Your task to perform on an android device: open app "ZOOM Cloud Meetings" Image 0: 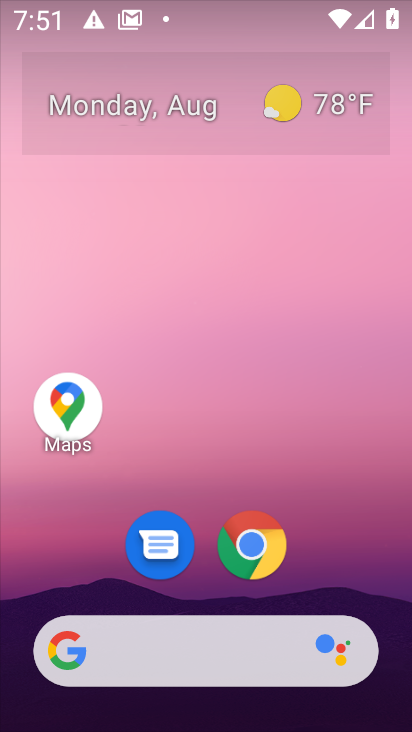
Step 0: press home button
Your task to perform on an android device: open app "ZOOM Cloud Meetings" Image 1: 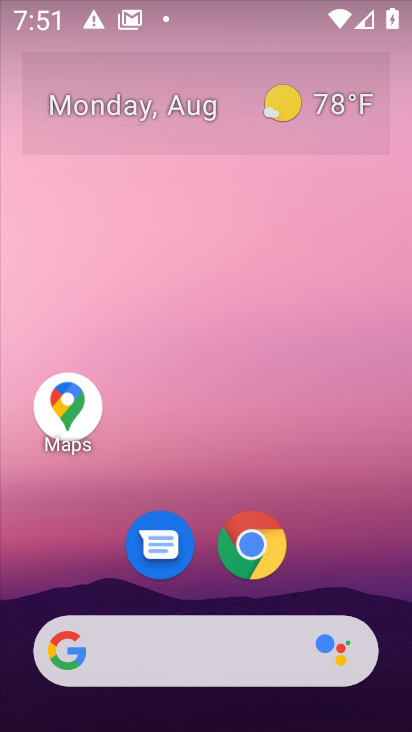
Step 1: drag from (357, 584) to (382, 103)
Your task to perform on an android device: open app "ZOOM Cloud Meetings" Image 2: 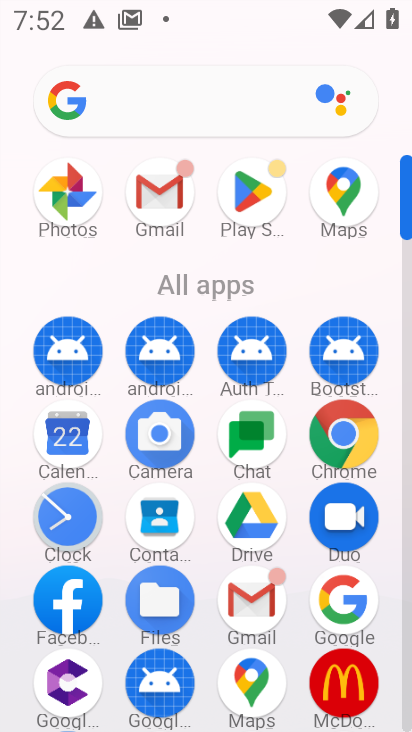
Step 2: click (264, 189)
Your task to perform on an android device: open app "ZOOM Cloud Meetings" Image 3: 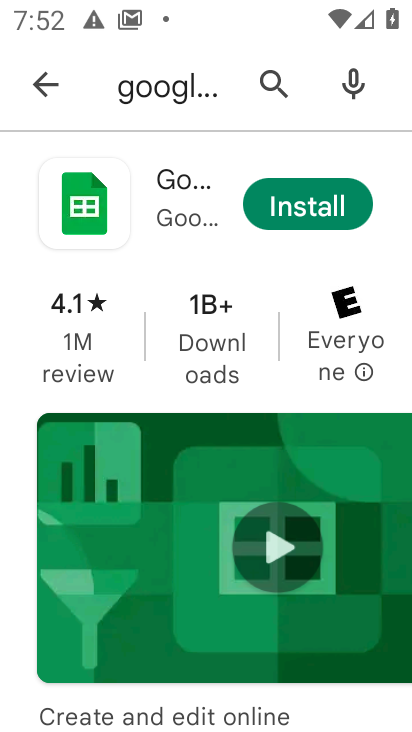
Step 3: press back button
Your task to perform on an android device: open app "ZOOM Cloud Meetings" Image 4: 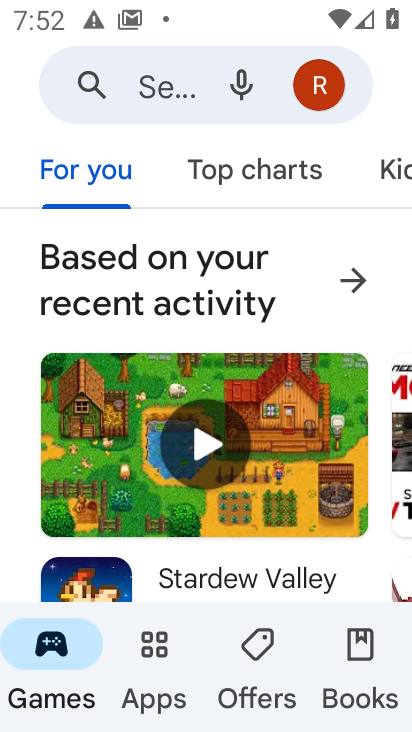
Step 4: click (170, 94)
Your task to perform on an android device: open app "ZOOM Cloud Meetings" Image 5: 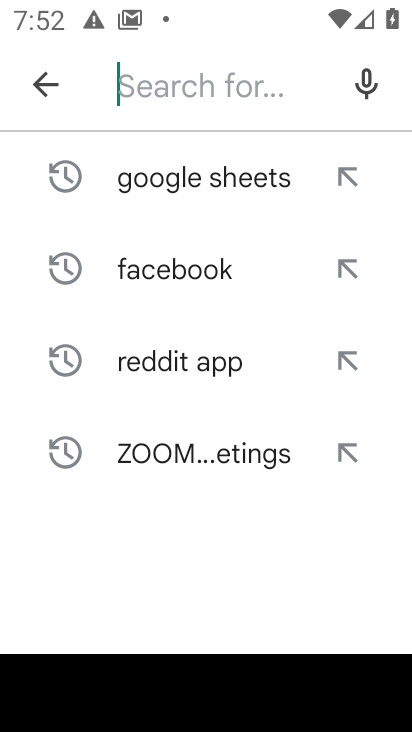
Step 5: type "zoom cloud meetings"
Your task to perform on an android device: open app "ZOOM Cloud Meetings" Image 6: 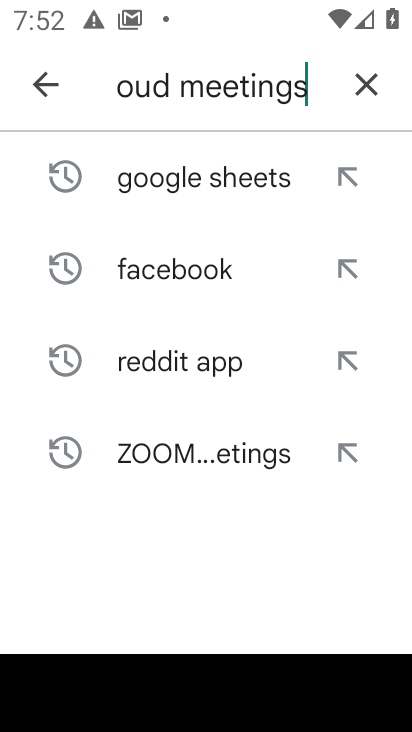
Step 6: press enter
Your task to perform on an android device: open app "ZOOM Cloud Meetings" Image 7: 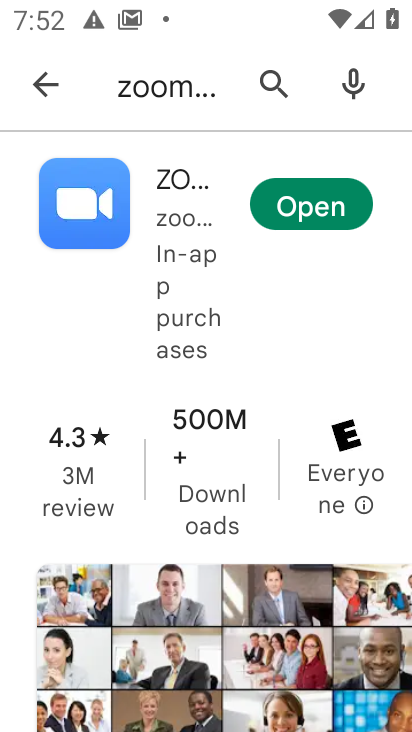
Step 7: click (316, 207)
Your task to perform on an android device: open app "ZOOM Cloud Meetings" Image 8: 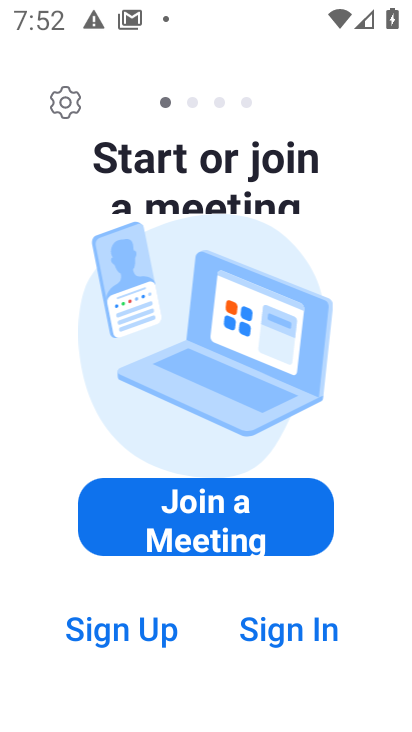
Step 8: task complete